Your task to perform on an android device: move an email to a new category in the gmail app Image 0: 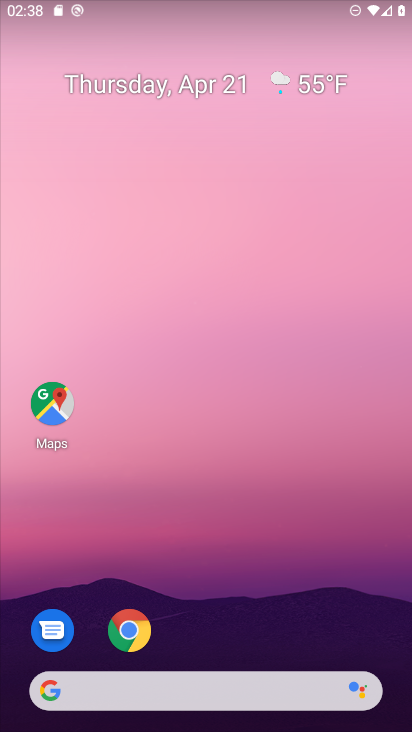
Step 0: drag from (216, 640) to (250, 0)
Your task to perform on an android device: move an email to a new category in the gmail app Image 1: 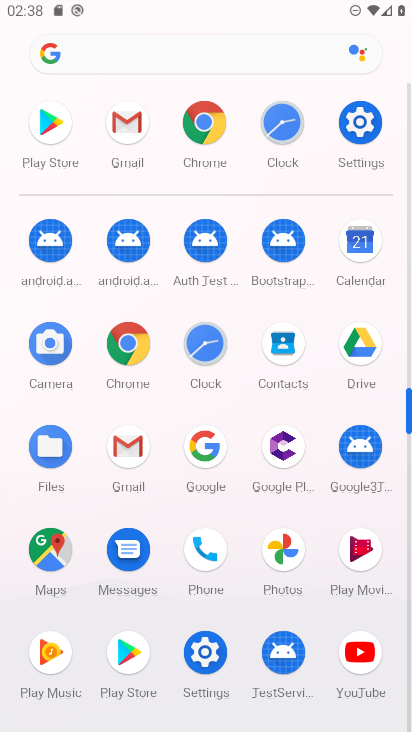
Step 1: click (140, 130)
Your task to perform on an android device: move an email to a new category in the gmail app Image 2: 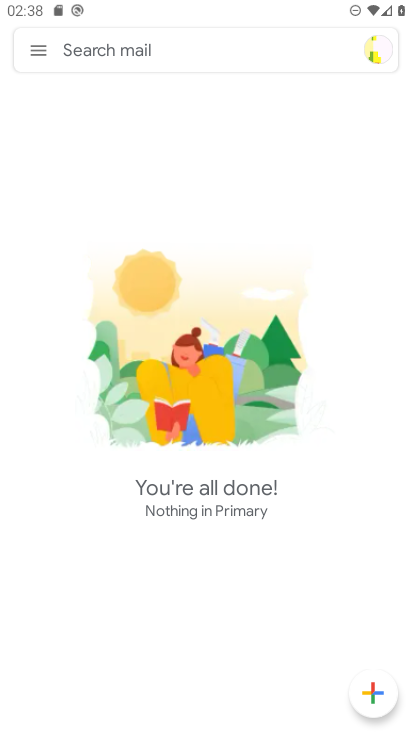
Step 2: click (187, 48)
Your task to perform on an android device: move an email to a new category in the gmail app Image 3: 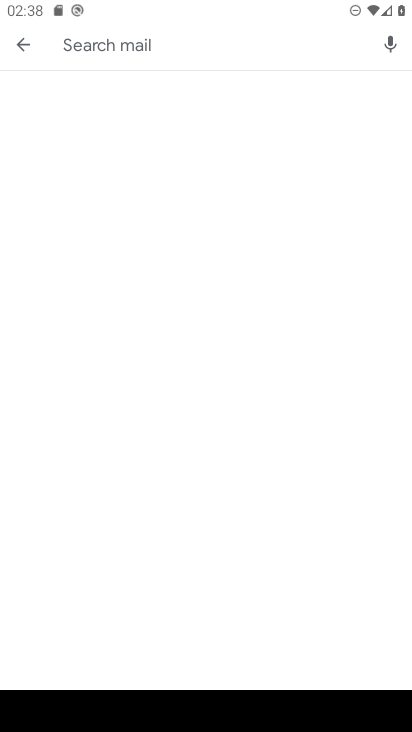
Step 3: task complete